Your task to perform on an android device: Search for Italian restaurants on Maps Image 0: 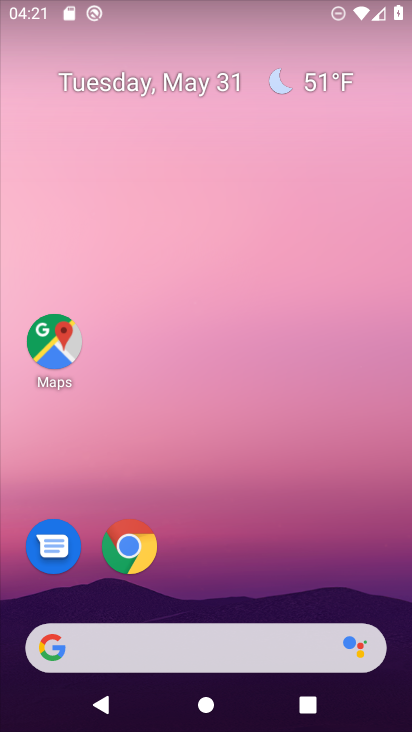
Step 0: drag from (259, 587) to (317, 126)
Your task to perform on an android device: Search for Italian restaurants on Maps Image 1: 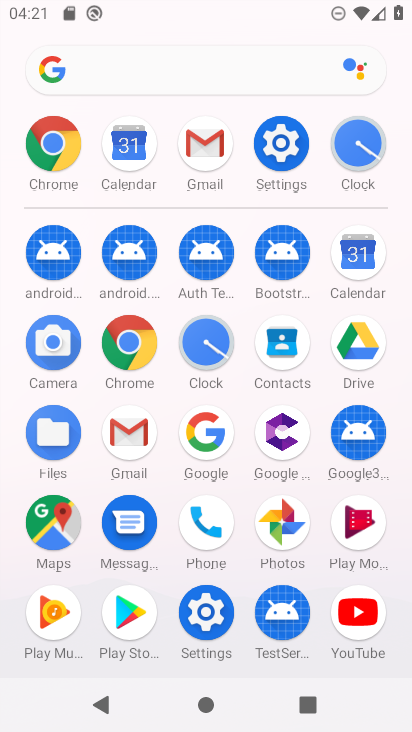
Step 1: click (54, 545)
Your task to perform on an android device: Search for Italian restaurants on Maps Image 2: 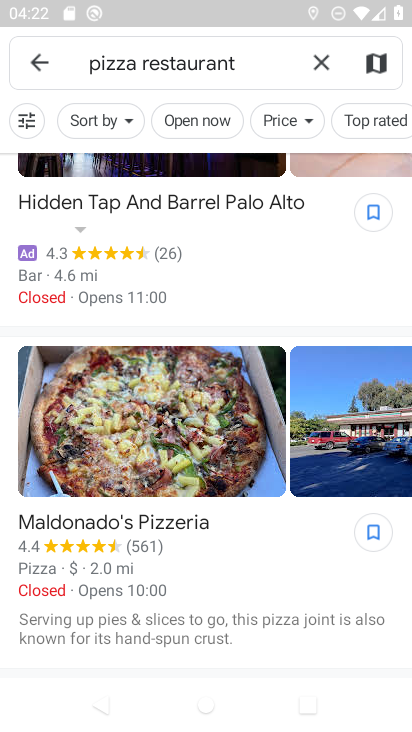
Step 2: click (323, 59)
Your task to perform on an android device: Search for Italian restaurants on Maps Image 3: 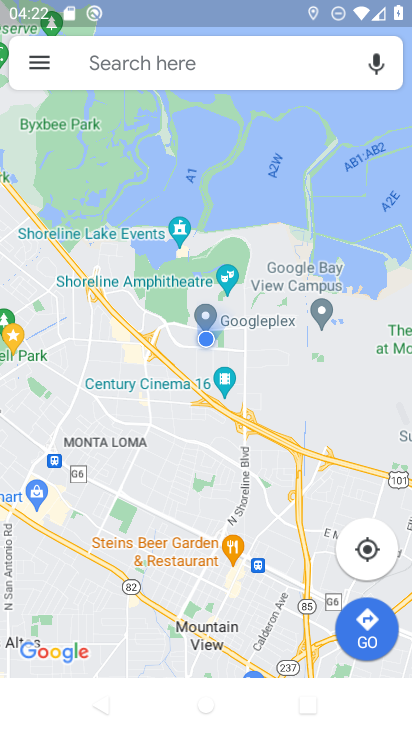
Step 3: click (207, 71)
Your task to perform on an android device: Search for Italian restaurants on Maps Image 4: 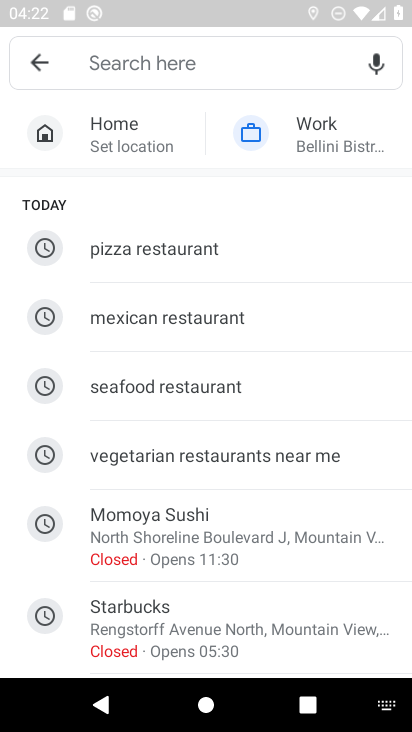
Step 4: type "italian restaurants"
Your task to perform on an android device: Search for Italian restaurants on Maps Image 5: 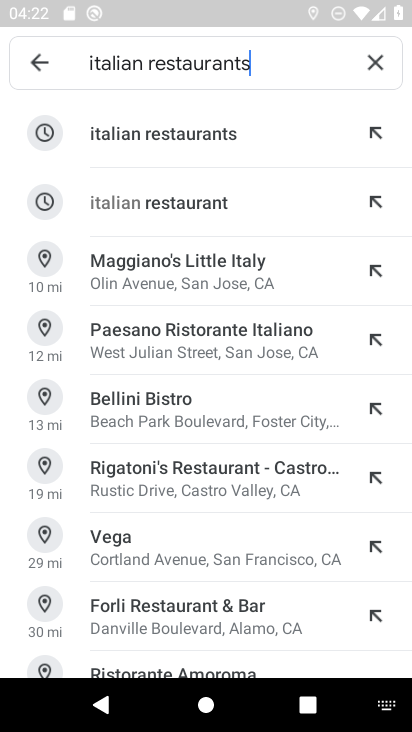
Step 5: click (221, 132)
Your task to perform on an android device: Search for Italian restaurants on Maps Image 6: 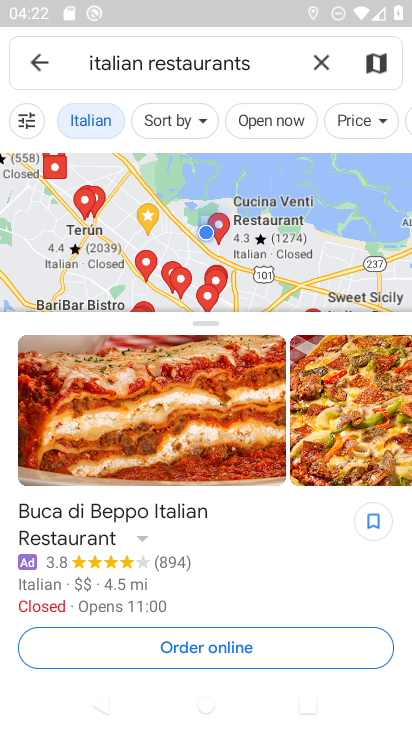
Step 6: task complete